Your task to perform on an android device: search for starred emails in the gmail app Image 0: 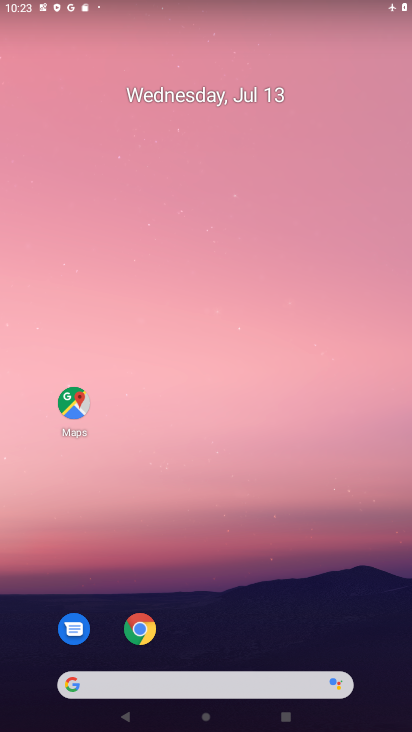
Step 0: drag from (271, 595) to (269, 58)
Your task to perform on an android device: search for starred emails in the gmail app Image 1: 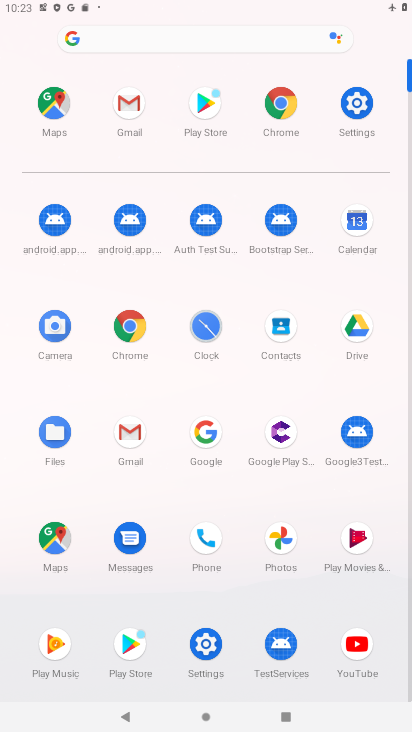
Step 1: click (138, 121)
Your task to perform on an android device: search for starred emails in the gmail app Image 2: 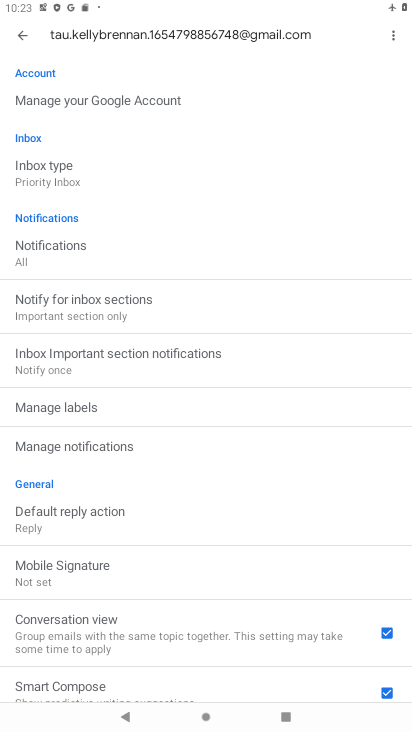
Step 2: task complete